Your task to perform on an android device: turn off wifi Image 0: 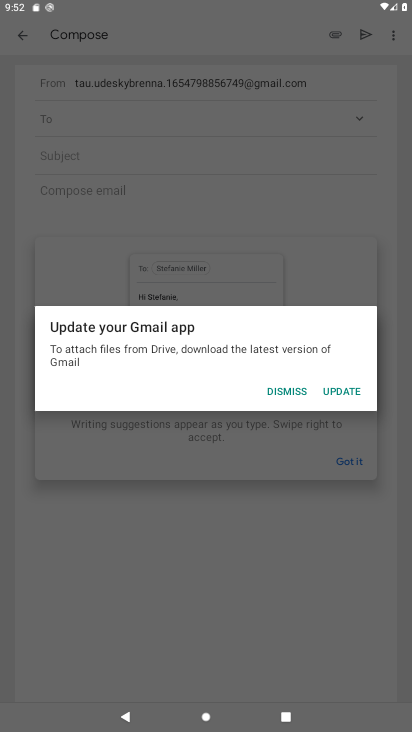
Step 0: press home button
Your task to perform on an android device: turn off wifi Image 1: 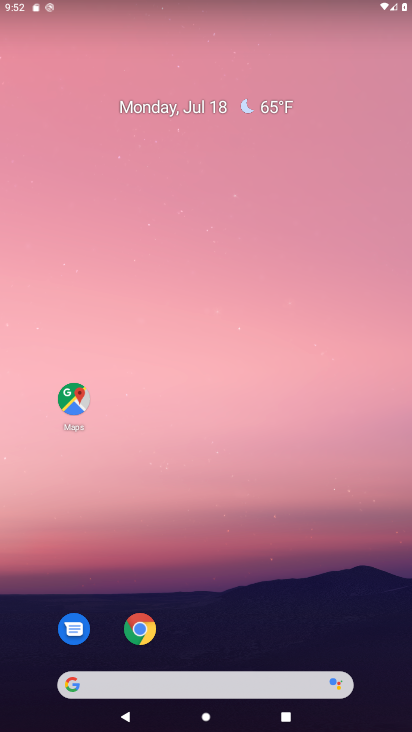
Step 1: drag from (220, 564) to (206, 161)
Your task to perform on an android device: turn off wifi Image 2: 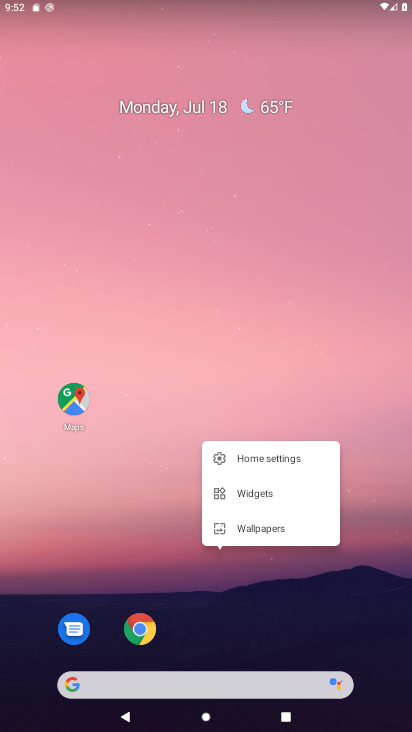
Step 2: click (143, 478)
Your task to perform on an android device: turn off wifi Image 3: 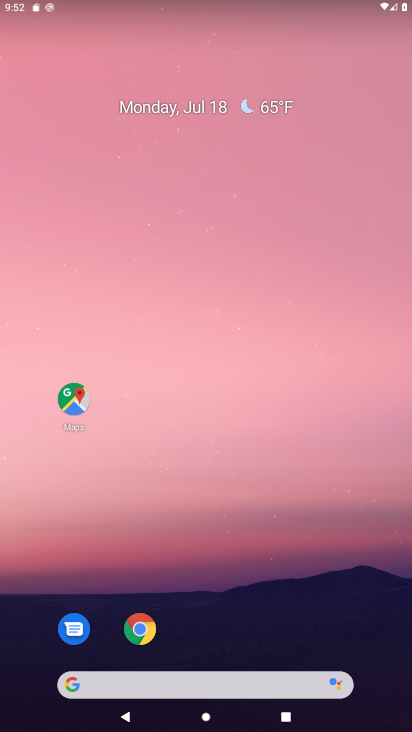
Step 3: drag from (215, 550) to (118, 42)
Your task to perform on an android device: turn off wifi Image 4: 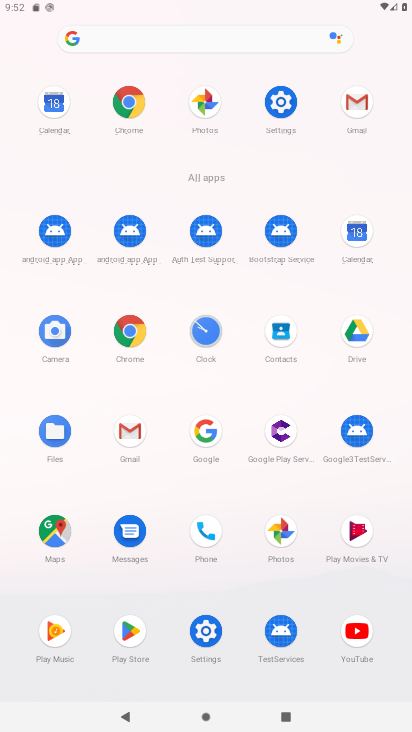
Step 4: click (276, 98)
Your task to perform on an android device: turn off wifi Image 5: 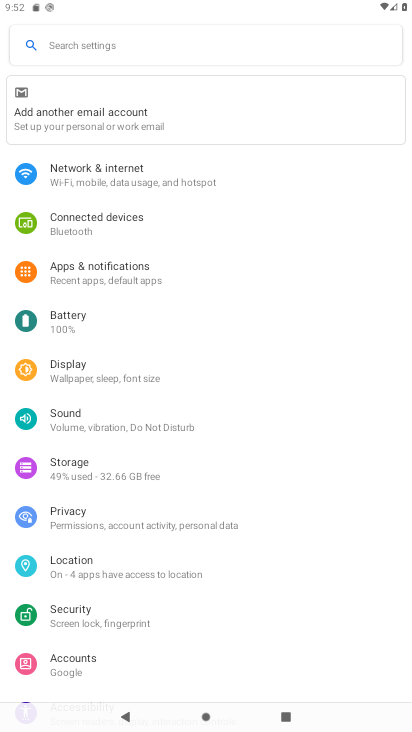
Step 5: click (98, 168)
Your task to perform on an android device: turn off wifi Image 6: 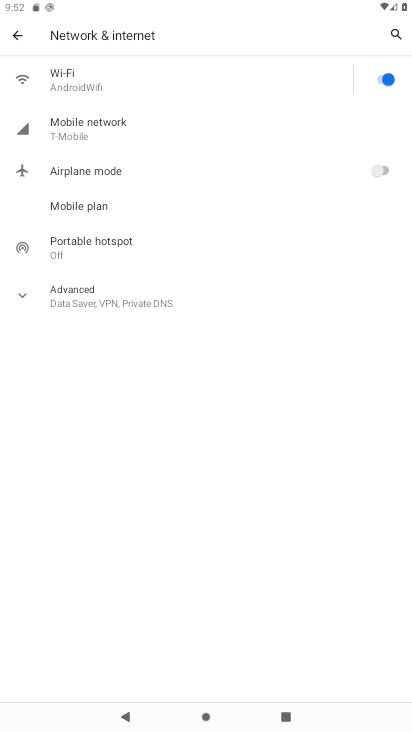
Step 6: click (393, 76)
Your task to perform on an android device: turn off wifi Image 7: 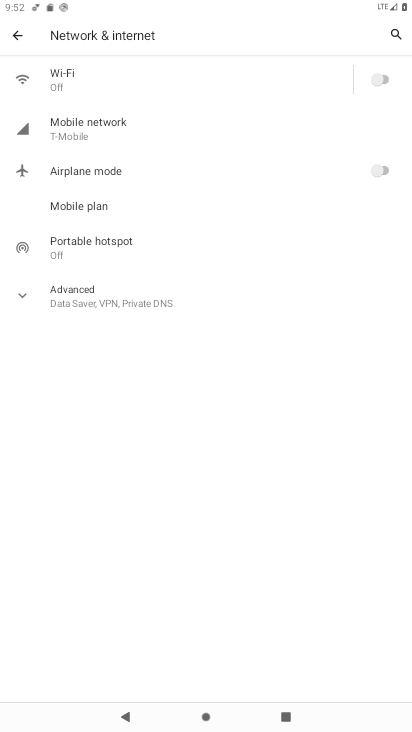
Step 7: task complete